Your task to perform on an android device: Go to Yahoo.com Image 0: 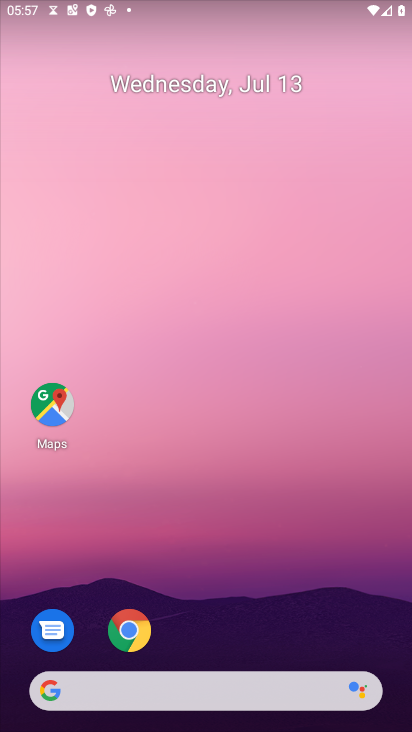
Step 0: drag from (309, 678) to (328, 128)
Your task to perform on an android device: Go to Yahoo.com Image 1: 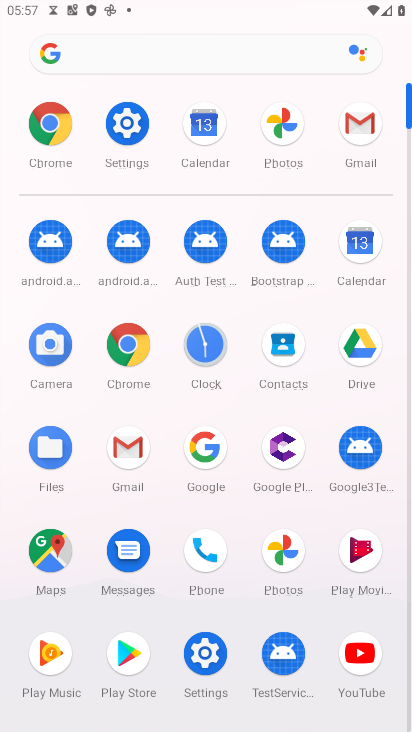
Step 1: click (114, 337)
Your task to perform on an android device: Go to Yahoo.com Image 2: 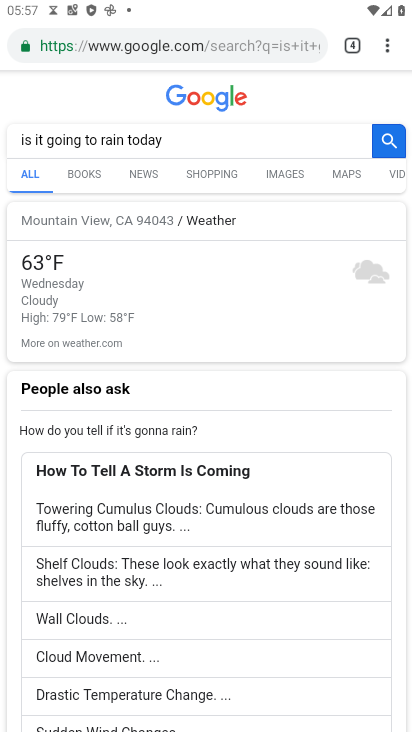
Step 2: drag from (383, 36) to (342, 75)
Your task to perform on an android device: Go to Yahoo.com Image 3: 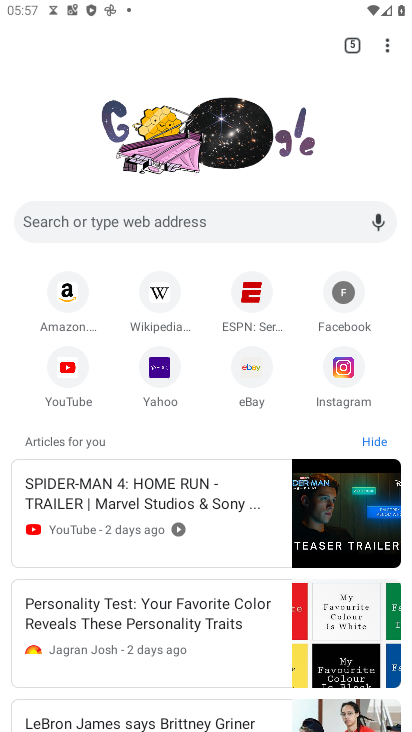
Step 3: click (170, 369)
Your task to perform on an android device: Go to Yahoo.com Image 4: 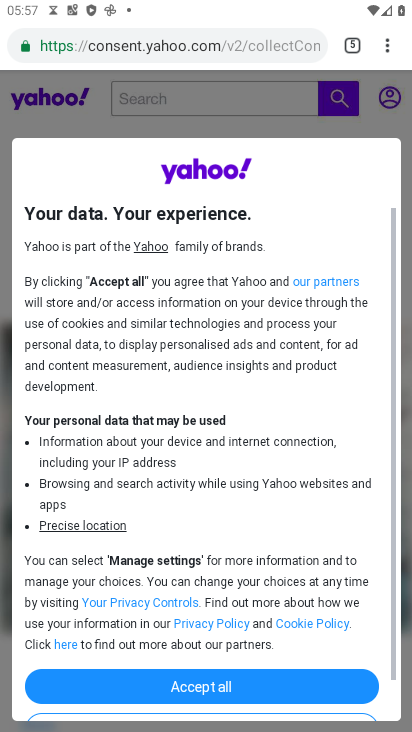
Step 4: task complete